Your task to perform on an android device: change the upload size in google photos Image 0: 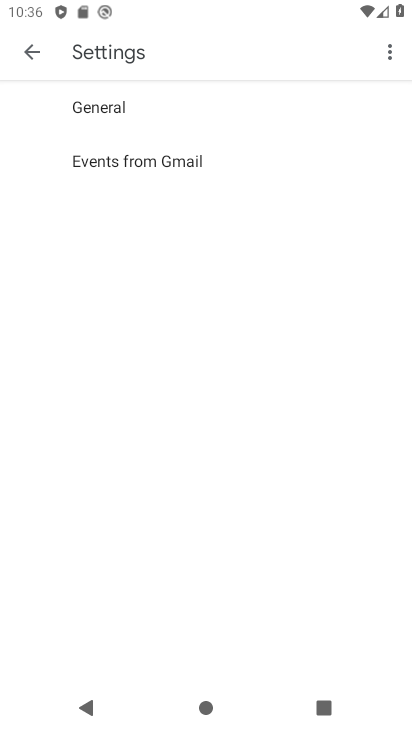
Step 0: press home button
Your task to perform on an android device: change the upload size in google photos Image 1: 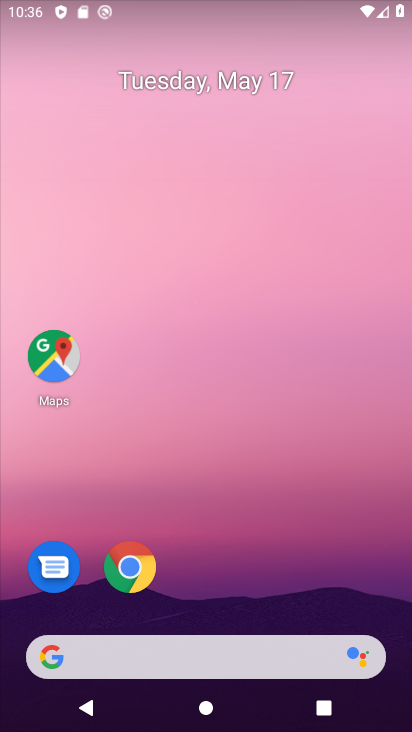
Step 1: drag from (245, 570) to (157, 77)
Your task to perform on an android device: change the upload size in google photos Image 2: 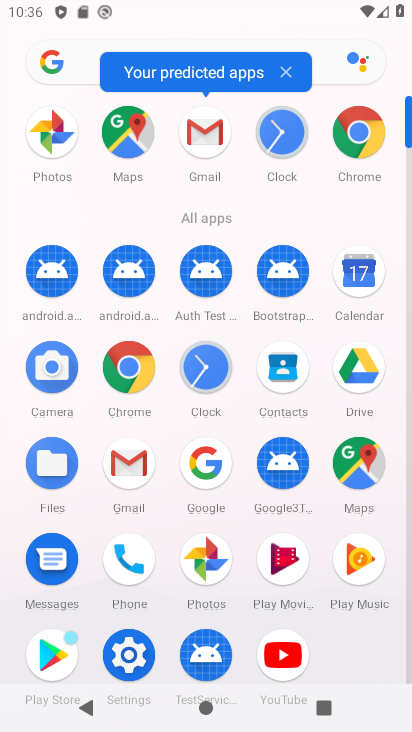
Step 2: click (211, 564)
Your task to perform on an android device: change the upload size in google photos Image 3: 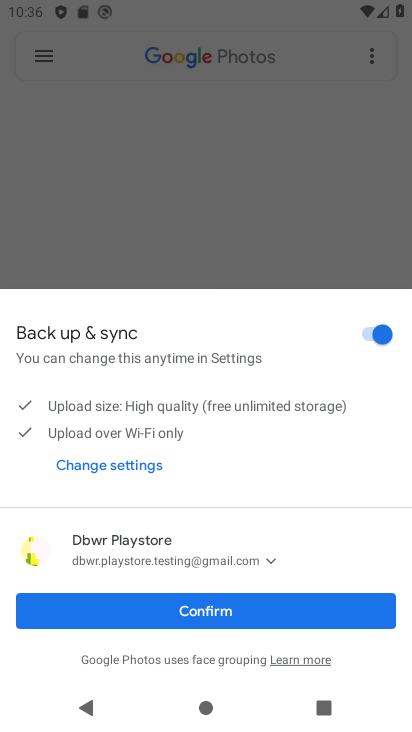
Step 3: click (192, 602)
Your task to perform on an android device: change the upload size in google photos Image 4: 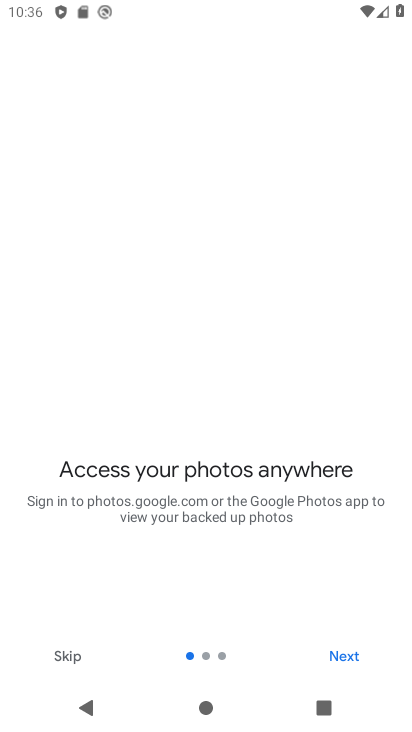
Step 4: click (352, 655)
Your task to perform on an android device: change the upload size in google photos Image 5: 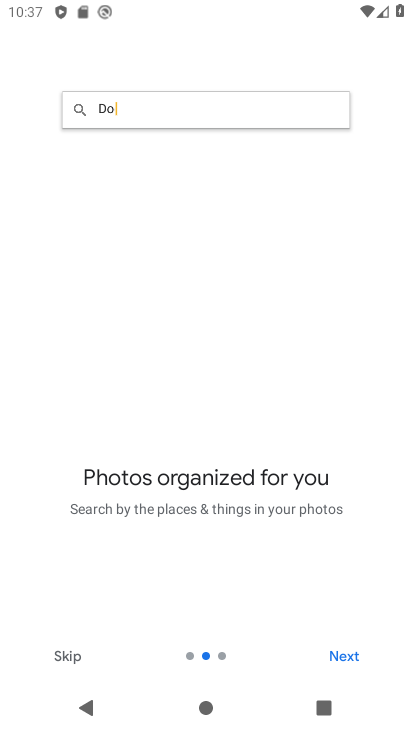
Step 5: click (351, 655)
Your task to perform on an android device: change the upload size in google photos Image 6: 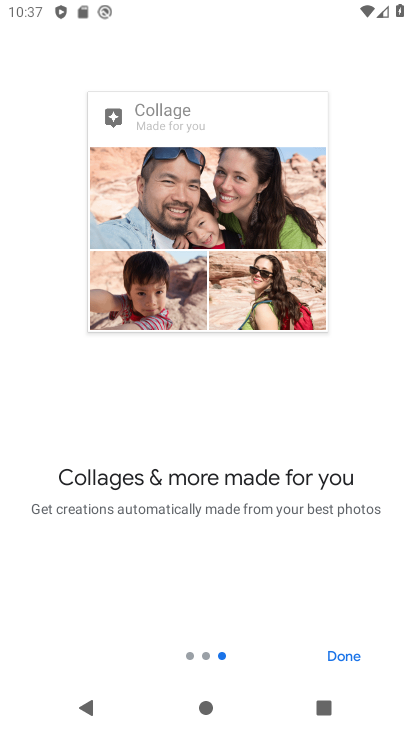
Step 6: click (351, 655)
Your task to perform on an android device: change the upload size in google photos Image 7: 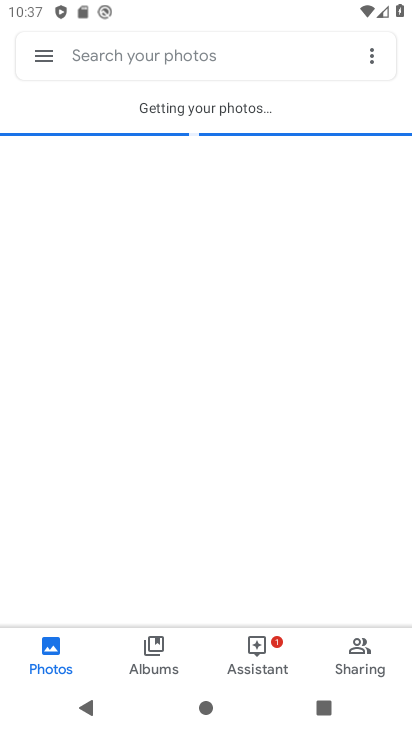
Step 7: click (51, 60)
Your task to perform on an android device: change the upload size in google photos Image 8: 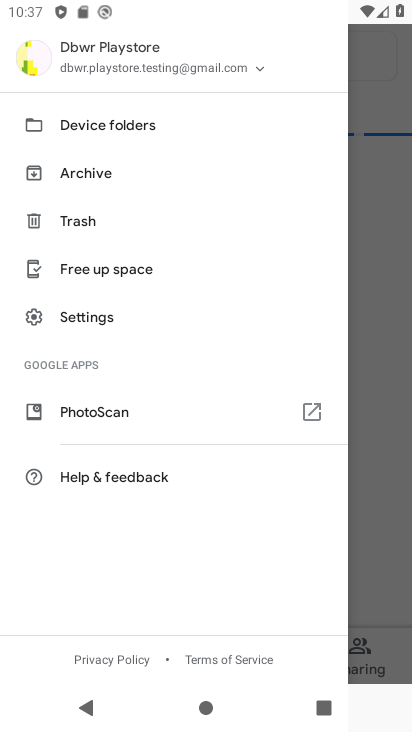
Step 8: click (102, 310)
Your task to perform on an android device: change the upload size in google photos Image 9: 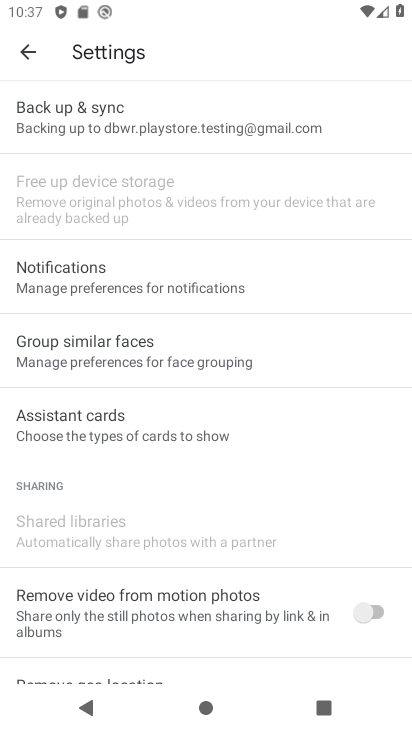
Step 9: click (121, 106)
Your task to perform on an android device: change the upload size in google photos Image 10: 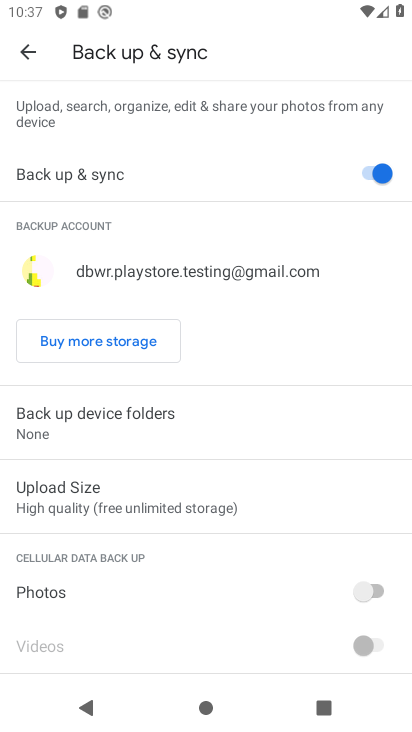
Step 10: click (215, 503)
Your task to perform on an android device: change the upload size in google photos Image 11: 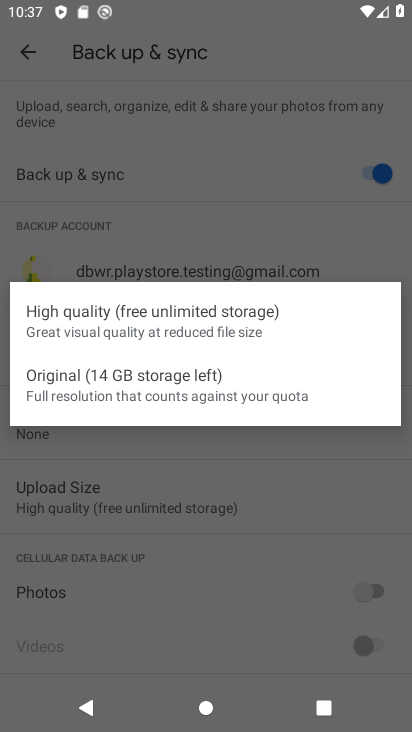
Step 11: click (165, 385)
Your task to perform on an android device: change the upload size in google photos Image 12: 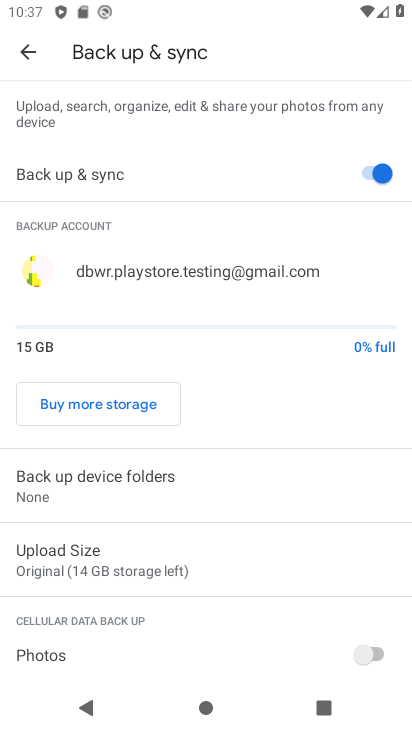
Step 12: task complete